Your task to perform on an android device: What's the weather today? Image 0: 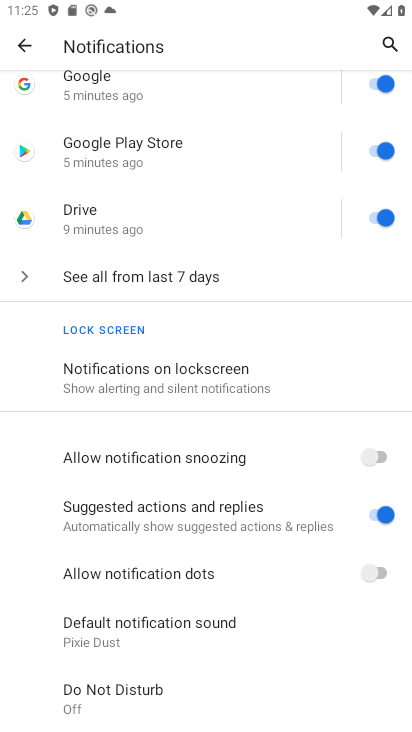
Step 0: press home button
Your task to perform on an android device: What's the weather today? Image 1: 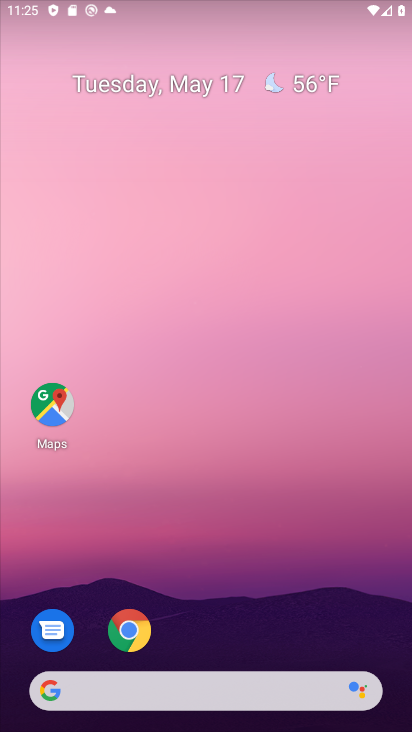
Step 1: drag from (318, 602) to (316, 181)
Your task to perform on an android device: What's the weather today? Image 2: 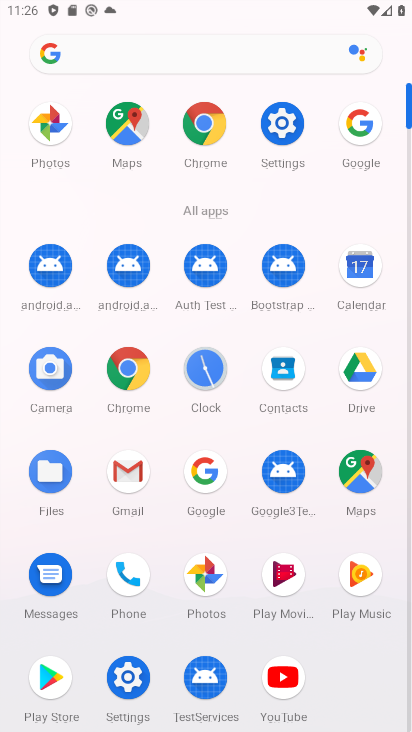
Step 2: click (137, 352)
Your task to perform on an android device: What's the weather today? Image 3: 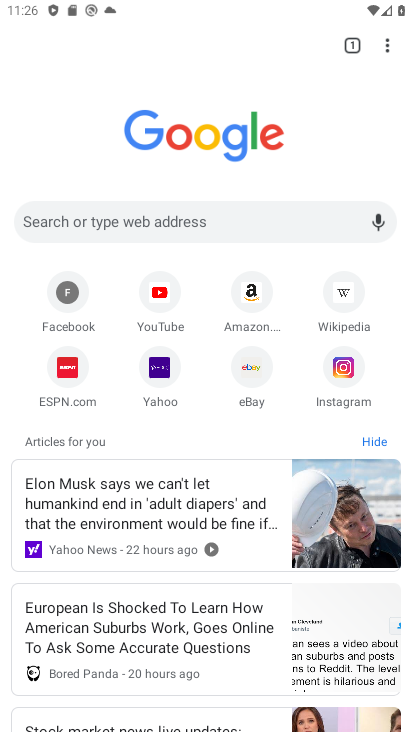
Step 3: click (159, 232)
Your task to perform on an android device: What's the weather today? Image 4: 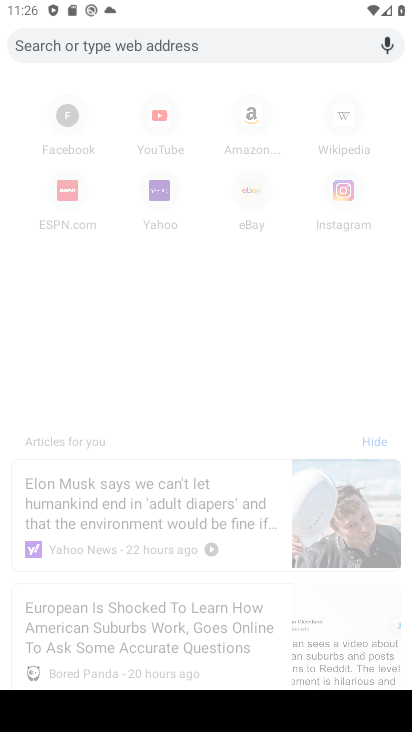
Step 4: type "what's the  weather today"
Your task to perform on an android device: What's the weather today? Image 5: 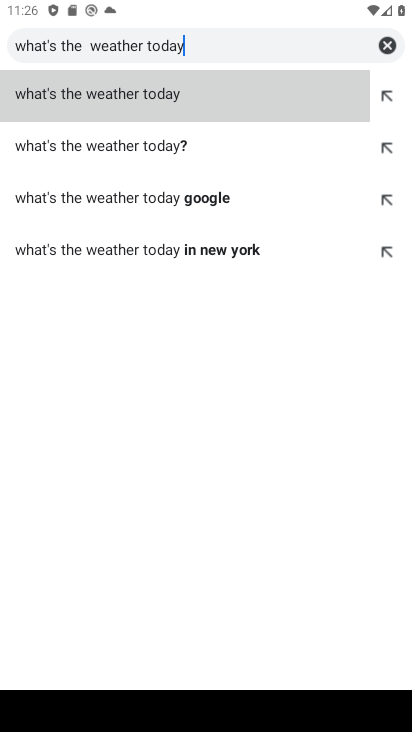
Step 5: click (124, 89)
Your task to perform on an android device: What's the weather today? Image 6: 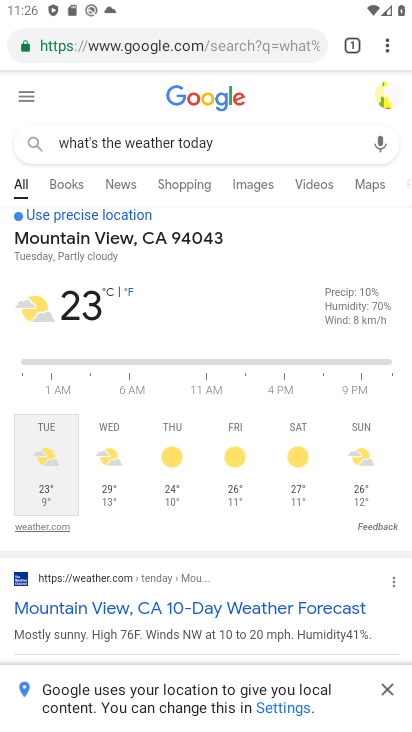
Step 6: task complete